Your task to perform on an android device: toggle pop-ups in chrome Image 0: 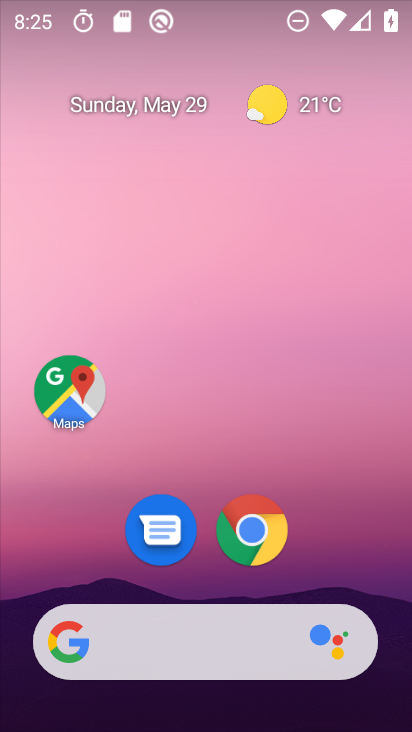
Step 0: drag from (235, 676) to (267, 112)
Your task to perform on an android device: toggle pop-ups in chrome Image 1: 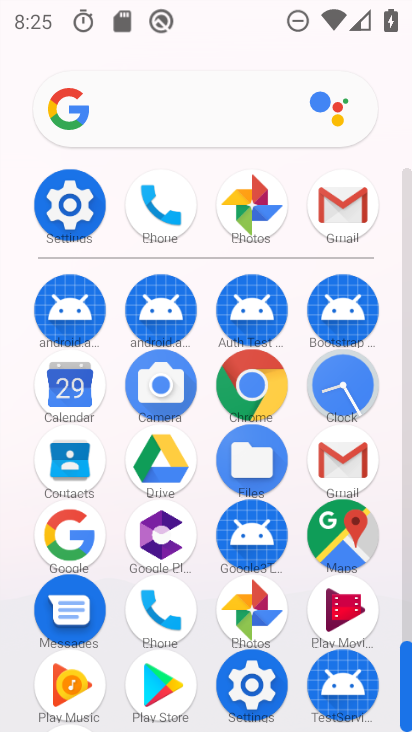
Step 1: click (250, 392)
Your task to perform on an android device: toggle pop-ups in chrome Image 2: 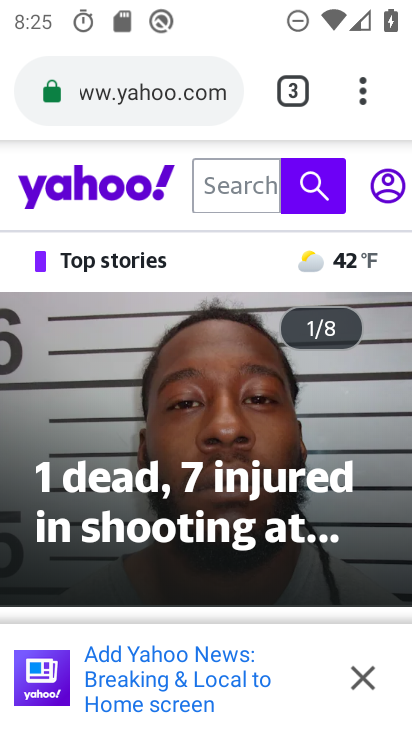
Step 2: click (361, 96)
Your task to perform on an android device: toggle pop-ups in chrome Image 3: 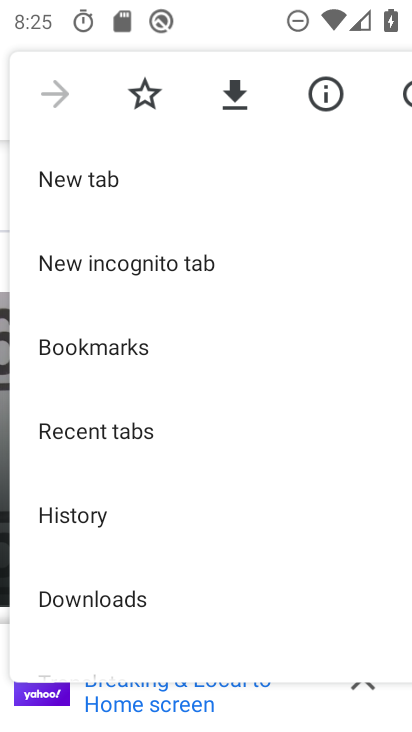
Step 3: drag from (237, 564) to (253, 242)
Your task to perform on an android device: toggle pop-ups in chrome Image 4: 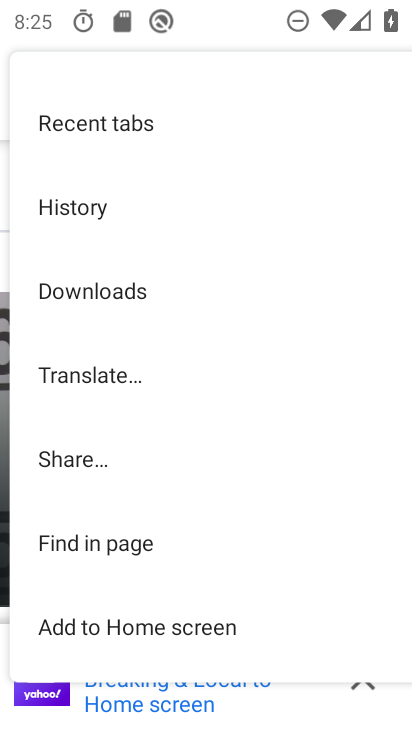
Step 4: drag from (130, 619) to (152, 387)
Your task to perform on an android device: toggle pop-ups in chrome Image 5: 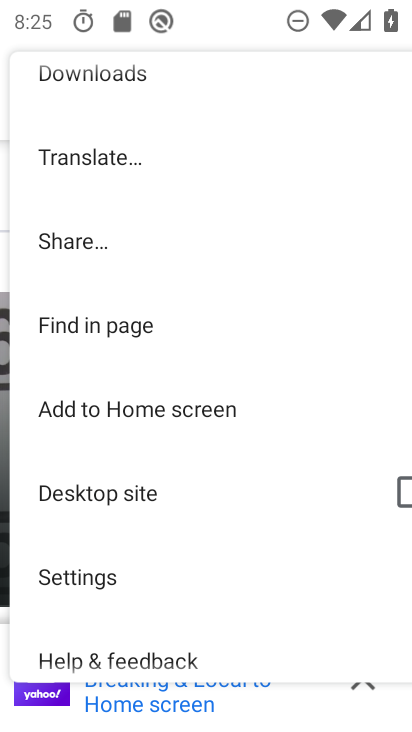
Step 5: click (111, 571)
Your task to perform on an android device: toggle pop-ups in chrome Image 6: 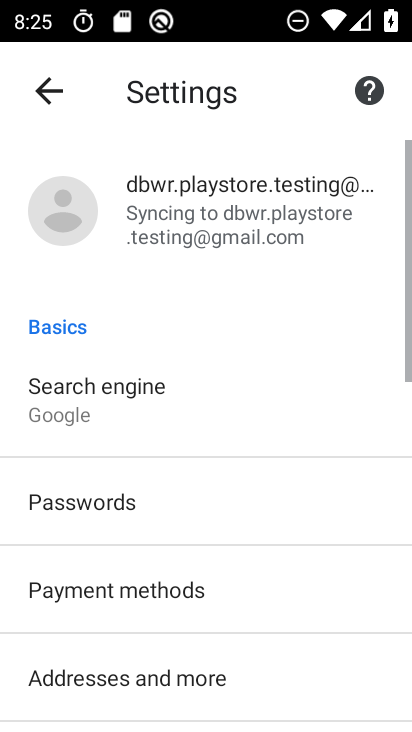
Step 6: drag from (114, 573) to (140, 183)
Your task to perform on an android device: toggle pop-ups in chrome Image 7: 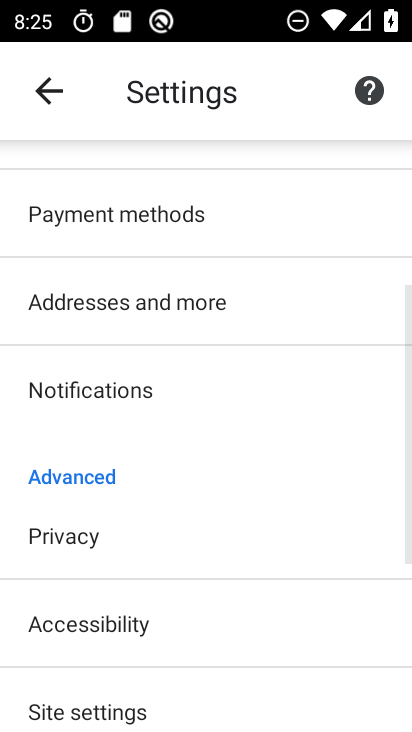
Step 7: drag from (198, 622) to (189, 259)
Your task to perform on an android device: toggle pop-ups in chrome Image 8: 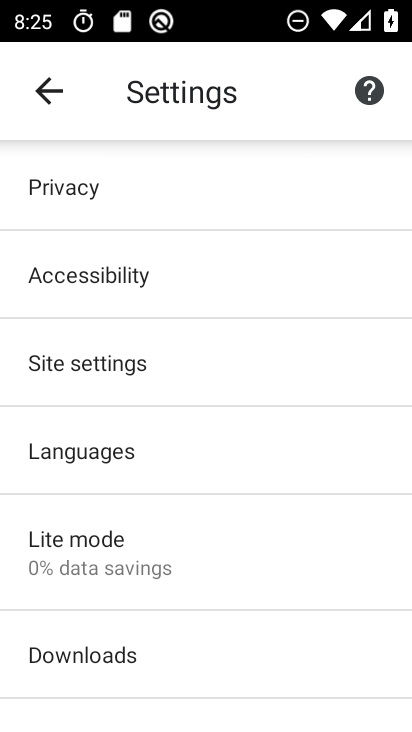
Step 8: click (90, 363)
Your task to perform on an android device: toggle pop-ups in chrome Image 9: 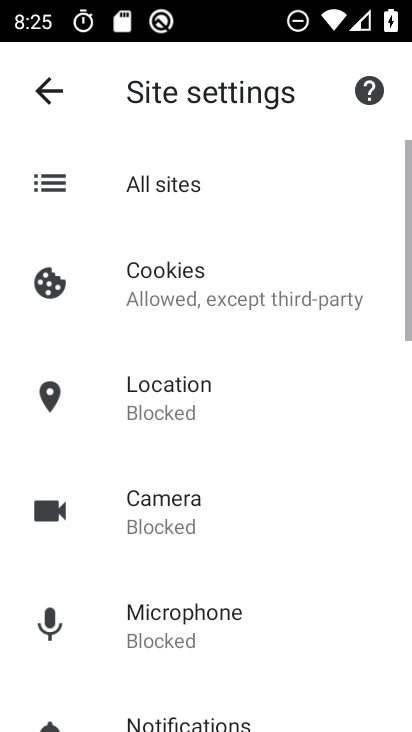
Step 9: drag from (225, 626) to (253, 178)
Your task to perform on an android device: toggle pop-ups in chrome Image 10: 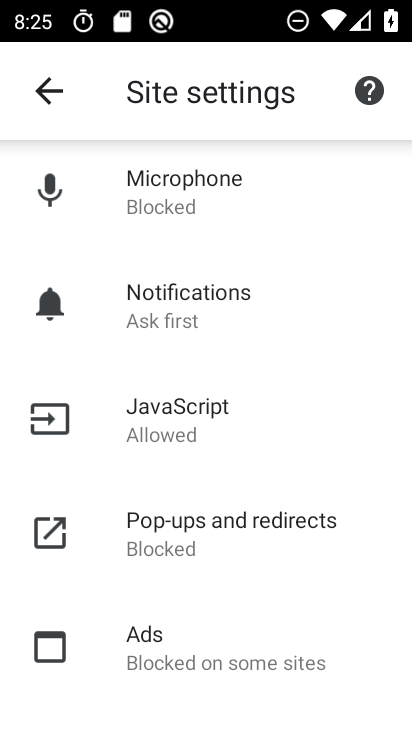
Step 10: click (197, 549)
Your task to perform on an android device: toggle pop-ups in chrome Image 11: 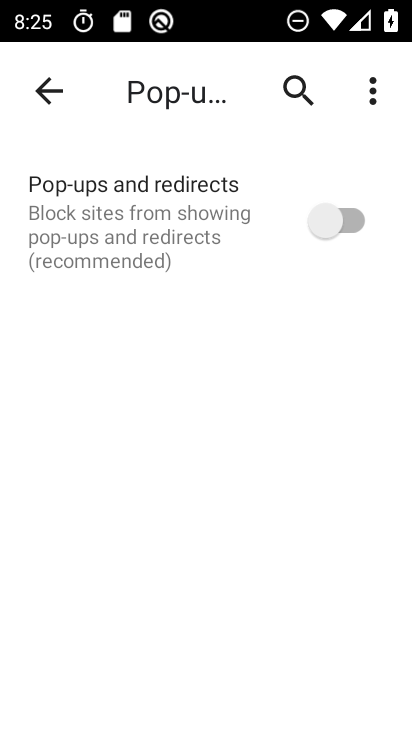
Step 11: task complete